Your task to perform on an android device: change alarm snooze length Image 0: 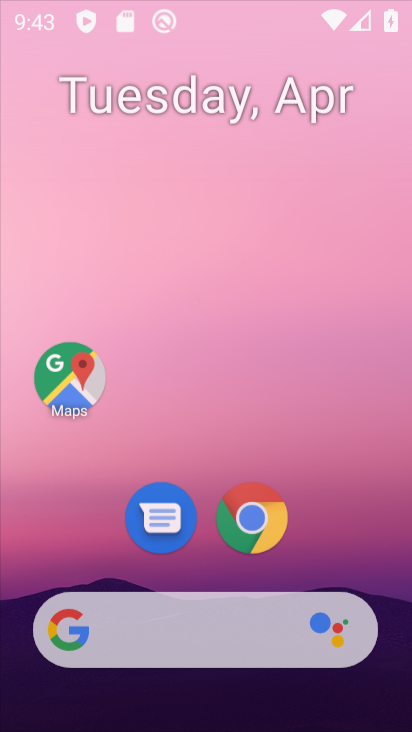
Step 0: drag from (242, 158) to (221, 71)
Your task to perform on an android device: change alarm snooze length Image 1: 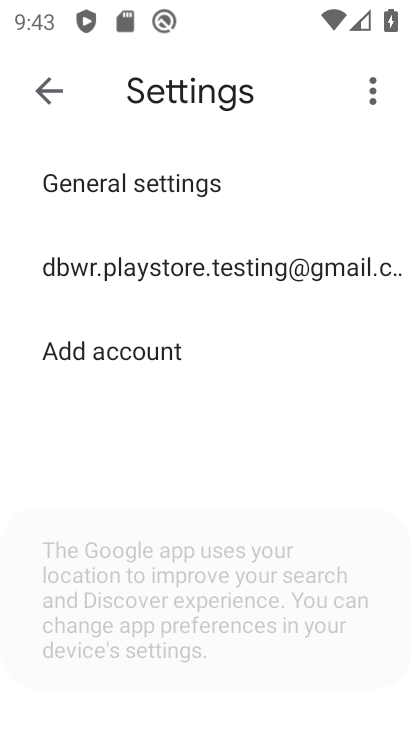
Step 1: press home button
Your task to perform on an android device: change alarm snooze length Image 2: 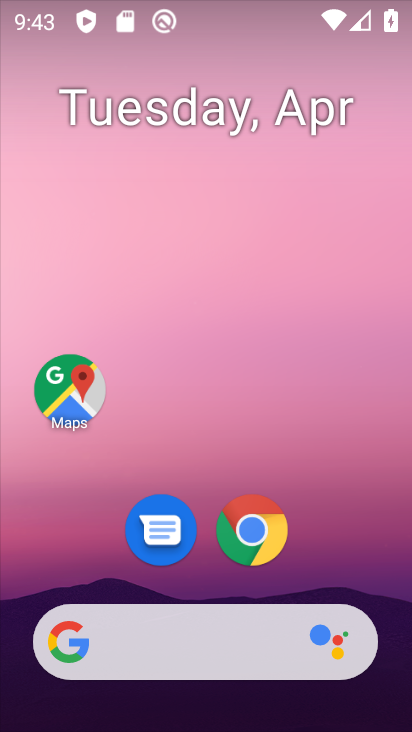
Step 2: drag from (316, 411) to (262, 57)
Your task to perform on an android device: change alarm snooze length Image 3: 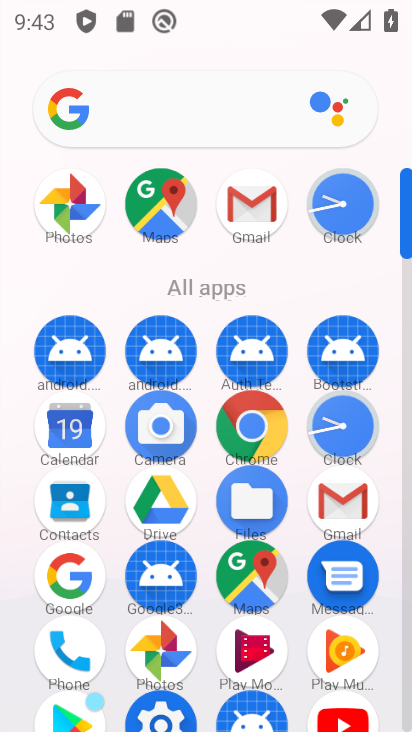
Step 3: click (349, 206)
Your task to perform on an android device: change alarm snooze length Image 4: 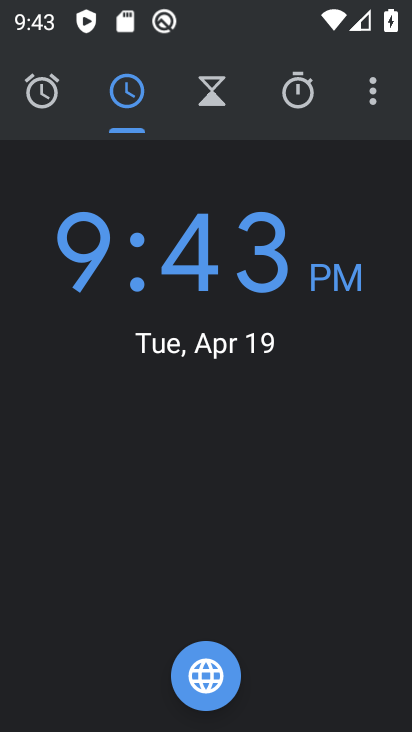
Step 4: click (376, 93)
Your task to perform on an android device: change alarm snooze length Image 5: 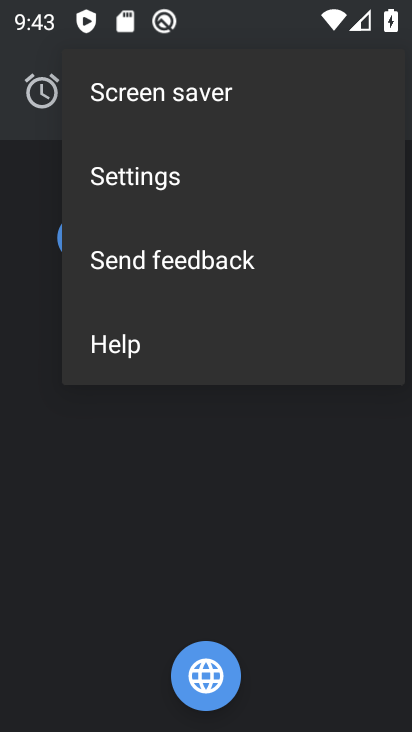
Step 5: click (168, 187)
Your task to perform on an android device: change alarm snooze length Image 6: 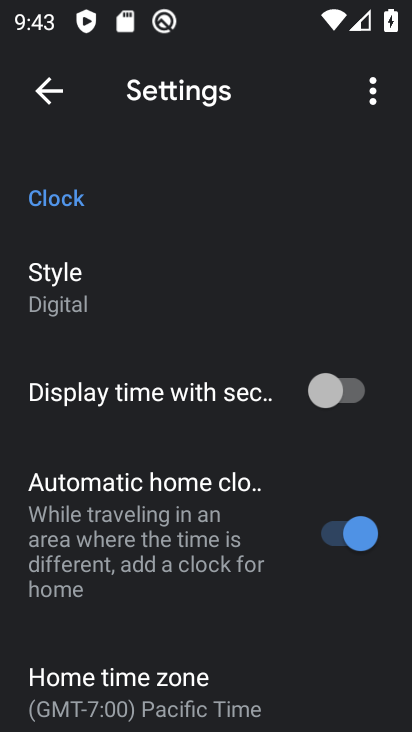
Step 6: drag from (182, 651) to (208, 122)
Your task to perform on an android device: change alarm snooze length Image 7: 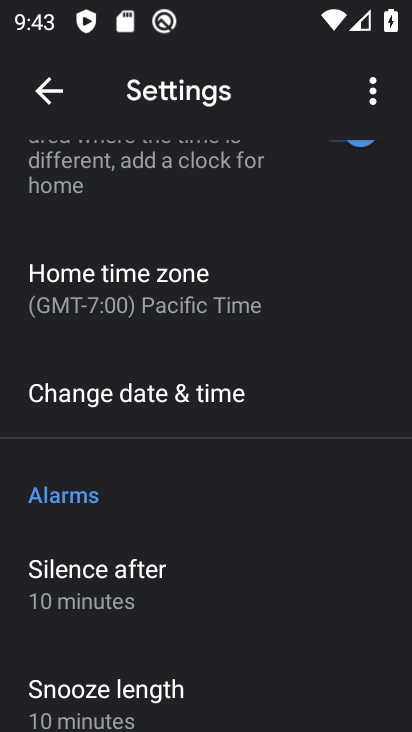
Step 7: drag from (150, 619) to (144, 266)
Your task to perform on an android device: change alarm snooze length Image 8: 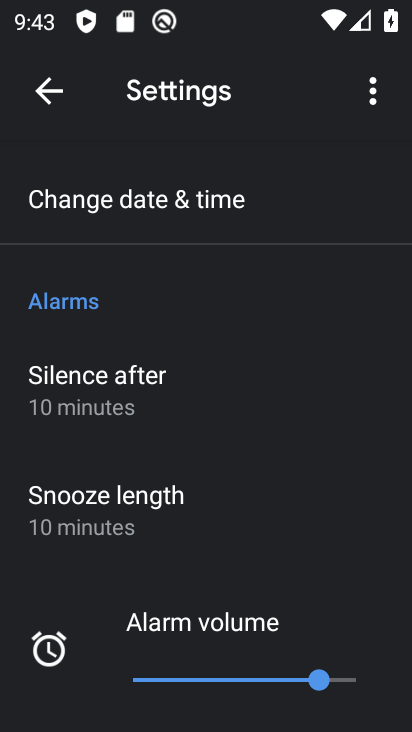
Step 8: click (94, 521)
Your task to perform on an android device: change alarm snooze length Image 9: 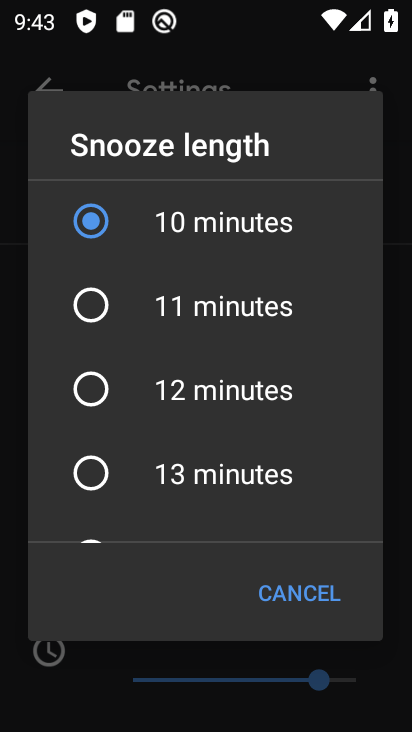
Step 9: click (92, 395)
Your task to perform on an android device: change alarm snooze length Image 10: 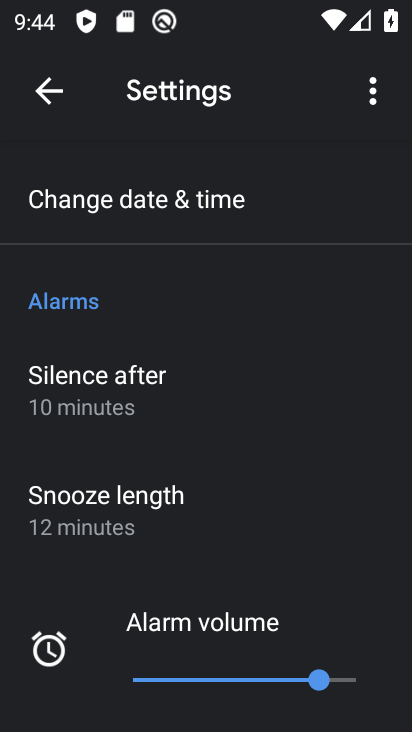
Step 10: task complete